Your task to perform on an android device: change text size in settings app Image 0: 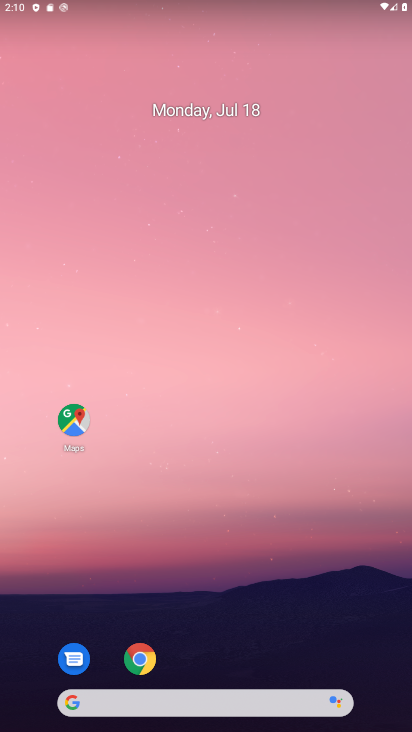
Step 0: drag from (204, 652) to (311, 151)
Your task to perform on an android device: change text size in settings app Image 1: 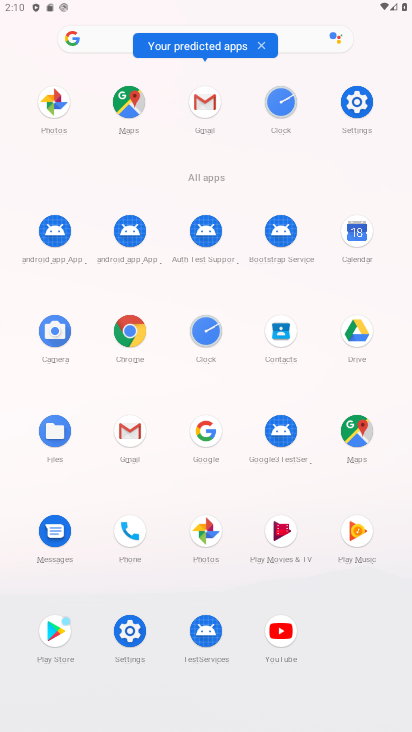
Step 1: click (136, 644)
Your task to perform on an android device: change text size in settings app Image 2: 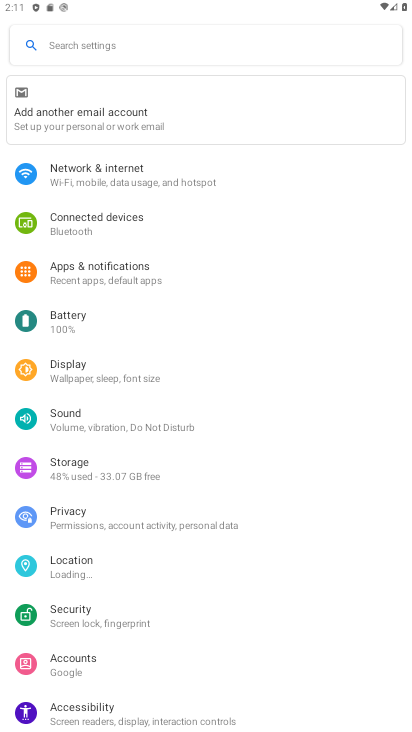
Step 2: click (149, 380)
Your task to perform on an android device: change text size in settings app Image 3: 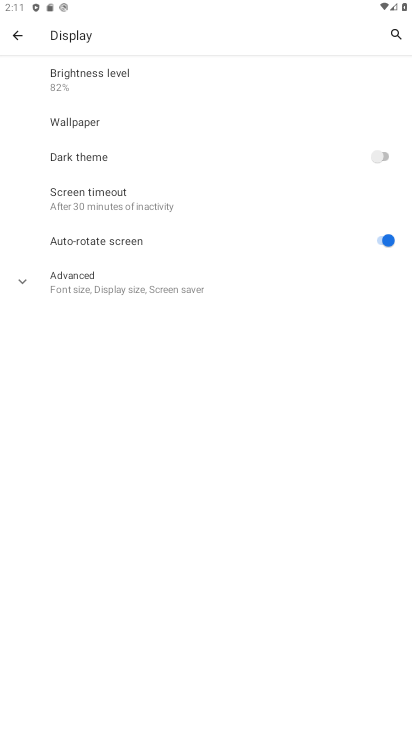
Step 3: click (144, 280)
Your task to perform on an android device: change text size in settings app Image 4: 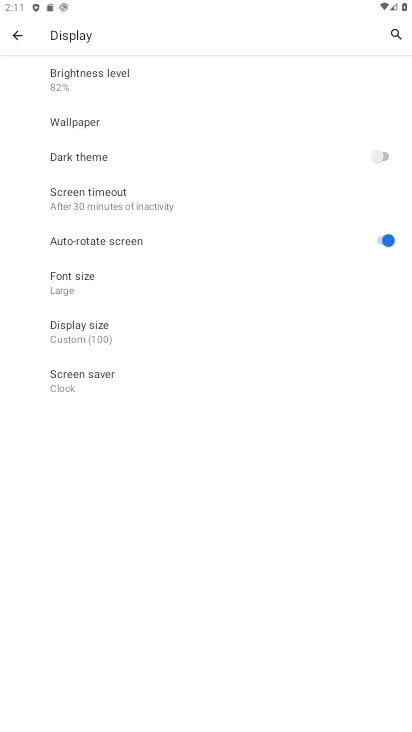
Step 4: click (225, 301)
Your task to perform on an android device: change text size in settings app Image 5: 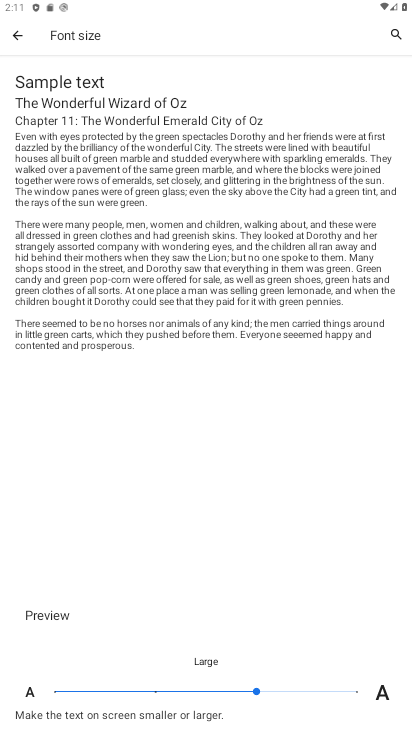
Step 5: click (350, 684)
Your task to perform on an android device: change text size in settings app Image 6: 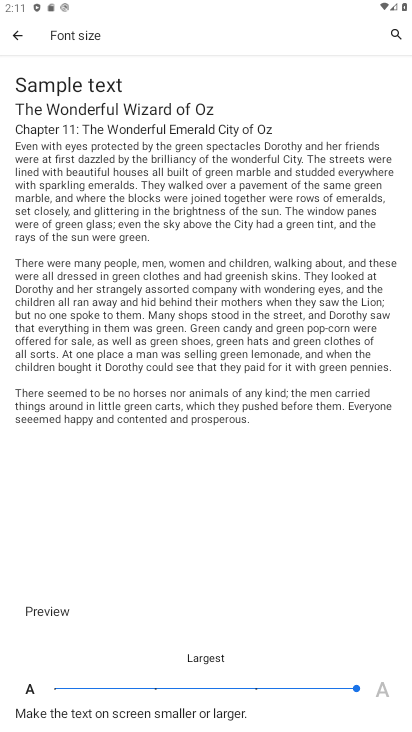
Step 6: task complete